Your task to perform on an android device: Set the phone to "Do not disturb". Image 0: 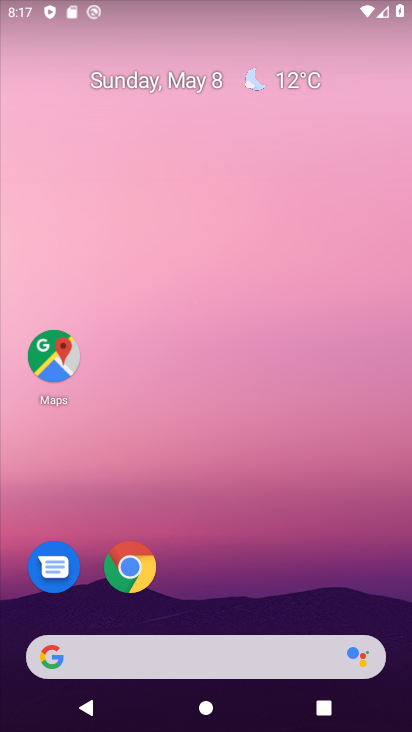
Step 0: drag from (287, 482) to (320, 133)
Your task to perform on an android device: Set the phone to "Do not disturb". Image 1: 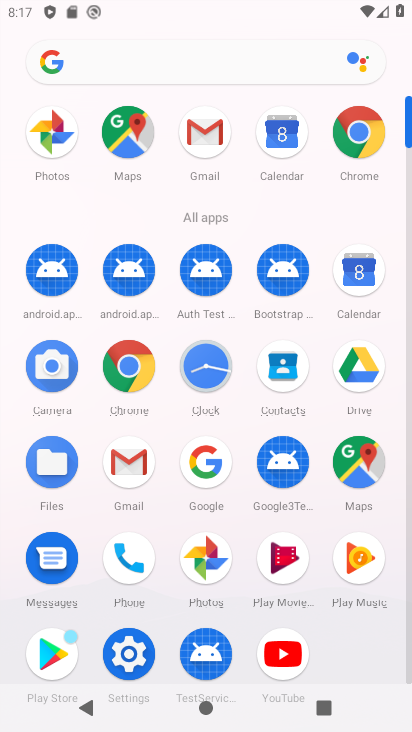
Step 1: click (125, 665)
Your task to perform on an android device: Set the phone to "Do not disturb". Image 2: 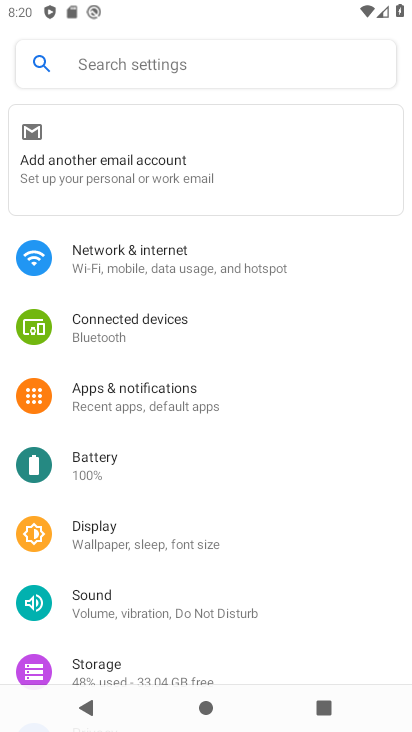
Step 2: drag from (220, 612) to (287, 224)
Your task to perform on an android device: Set the phone to "Do not disturb". Image 3: 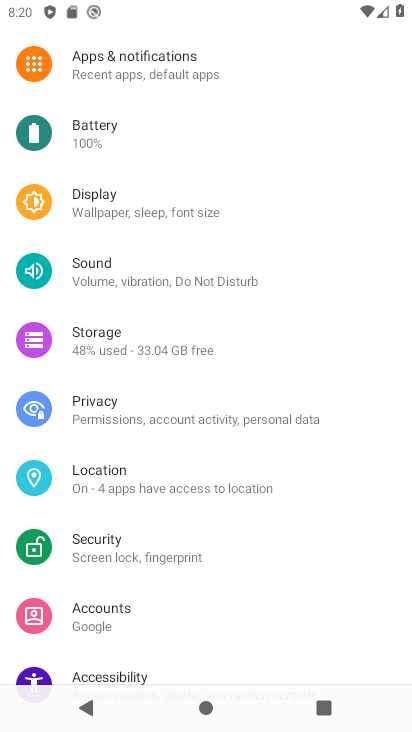
Step 3: drag from (105, 607) to (179, 246)
Your task to perform on an android device: Set the phone to "Do not disturb". Image 4: 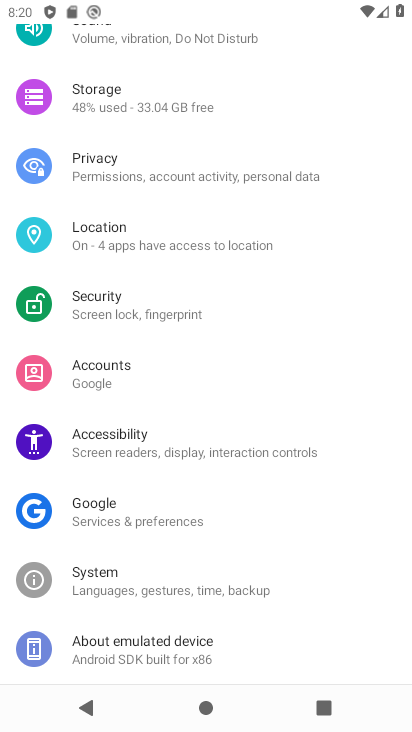
Step 4: drag from (189, 252) to (232, 476)
Your task to perform on an android device: Set the phone to "Do not disturb". Image 5: 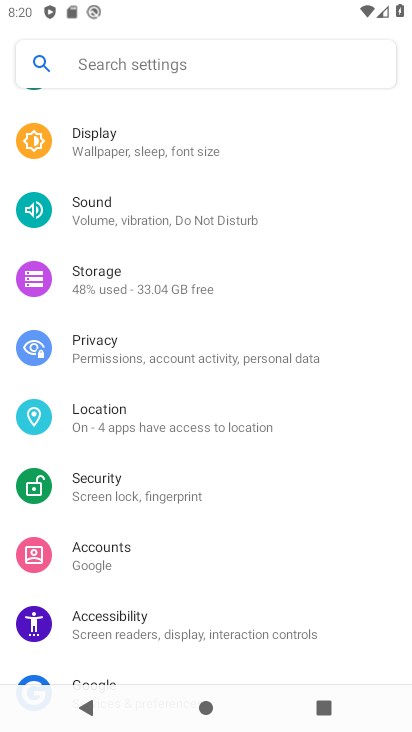
Step 5: click (177, 214)
Your task to perform on an android device: Set the phone to "Do not disturb". Image 6: 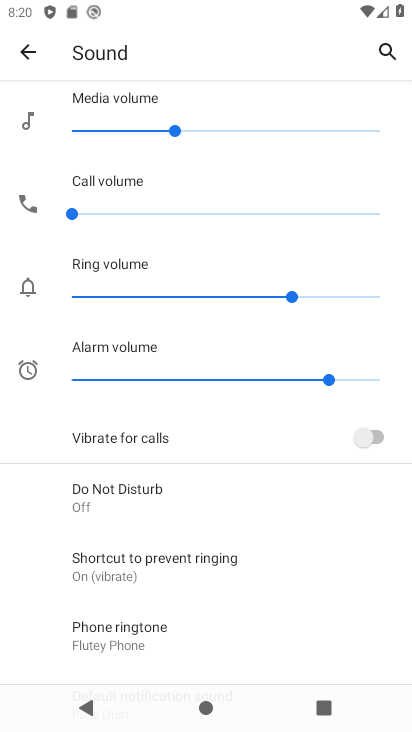
Step 6: click (141, 495)
Your task to perform on an android device: Set the phone to "Do not disturb". Image 7: 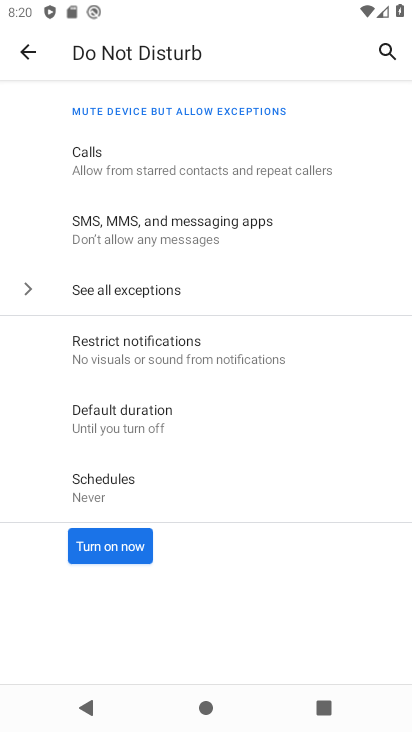
Step 7: click (106, 532)
Your task to perform on an android device: Set the phone to "Do not disturb". Image 8: 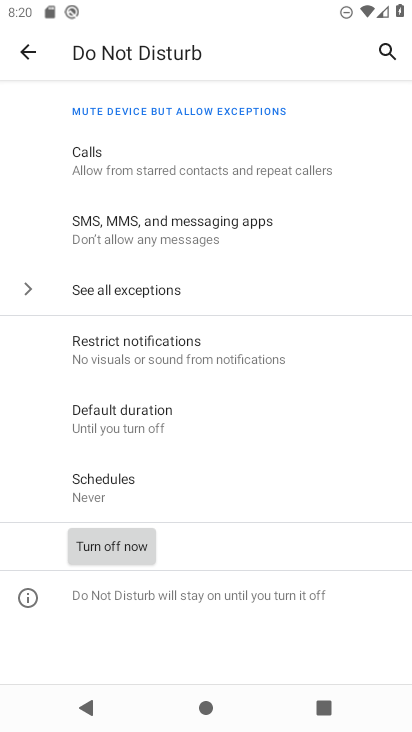
Step 8: task complete